Your task to perform on an android device: toggle wifi Image 0: 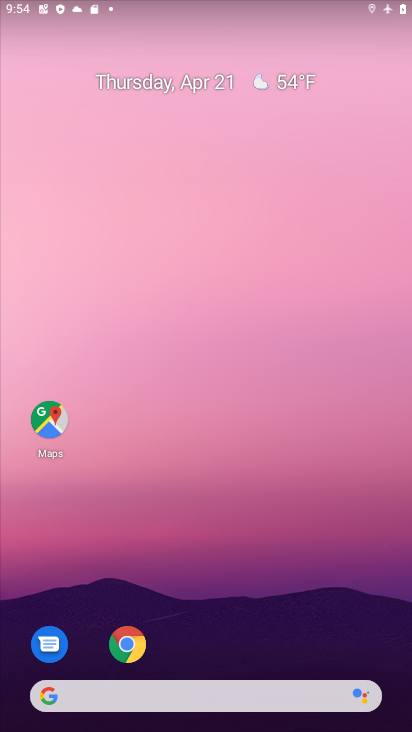
Step 0: drag from (184, 610) to (153, 101)
Your task to perform on an android device: toggle wifi Image 1: 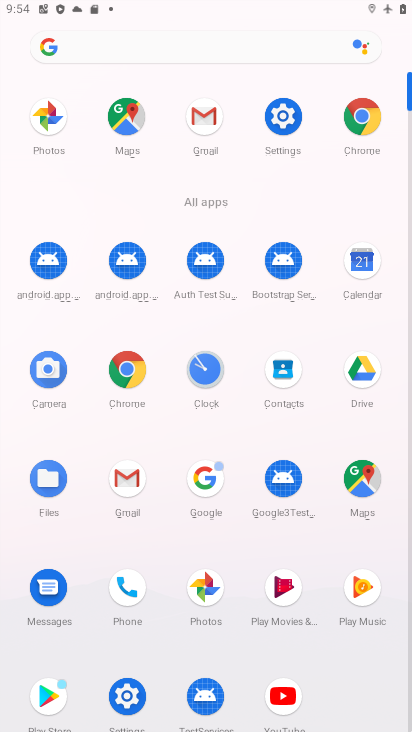
Step 1: click (279, 109)
Your task to perform on an android device: toggle wifi Image 2: 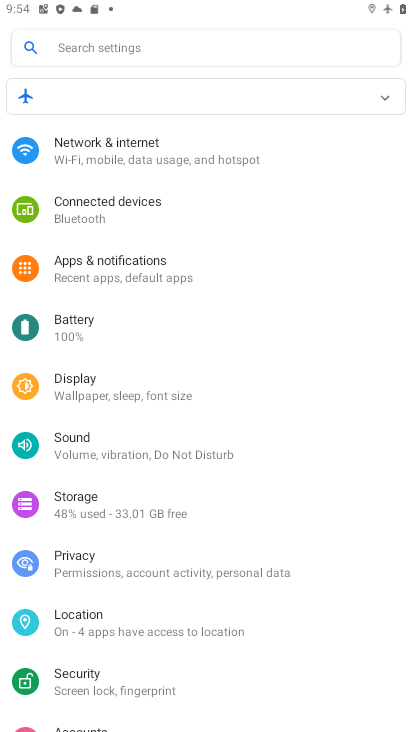
Step 2: click (117, 157)
Your task to perform on an android device: toggle wifi Image 3: 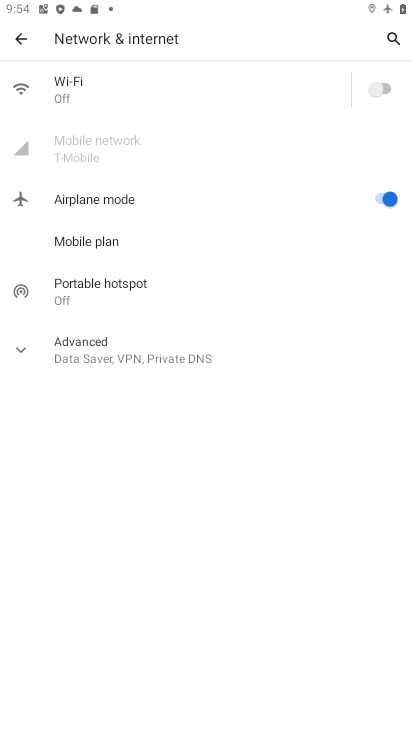
Step 3: click (384, 91)
Your task to perform on an android device: toggle wifi Image 4: 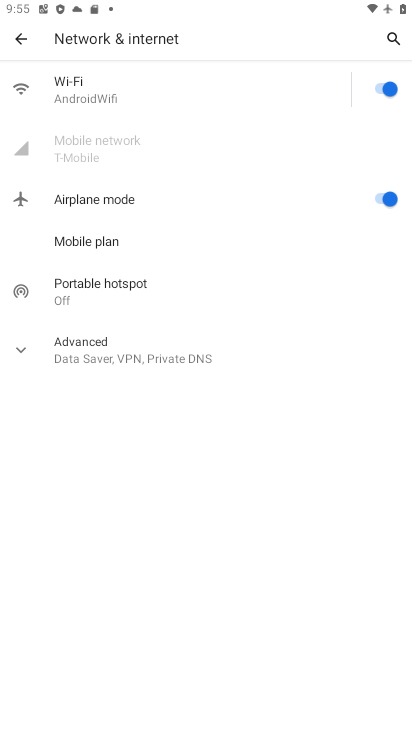
Step 4: task complete